Your task to perform on an android device: Show me productivity apps on the Play Store Image 0: 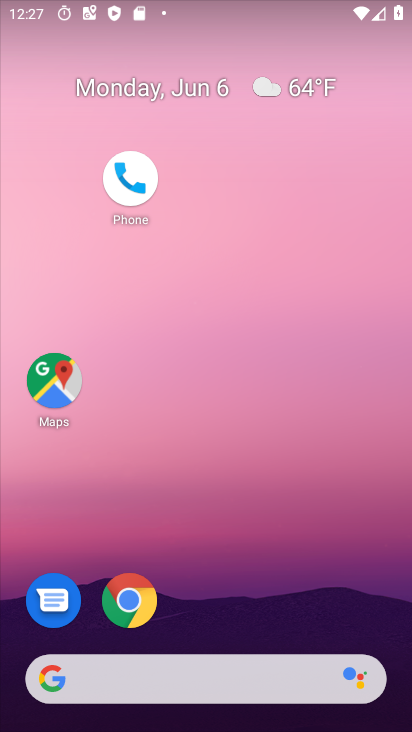
Step 0: drag from (287, 541) to (271, 58)
Your task to perform on an android device: Show me productivity apps on the Play Store Image 1: 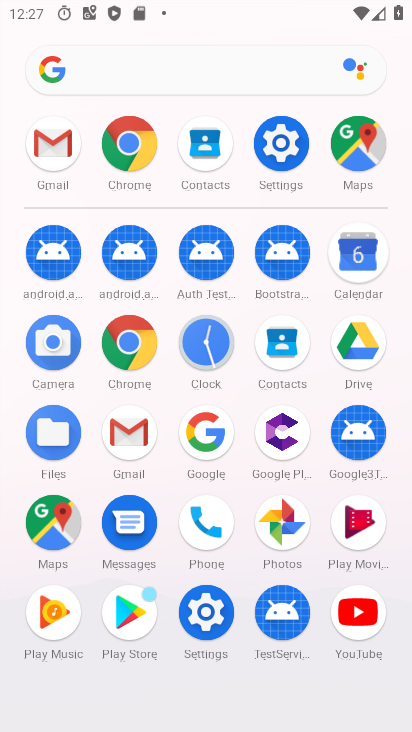
Step 1: click (141, 618)
Your task to perform on an android device: Show me productivity apps on the Play Store Image 2: 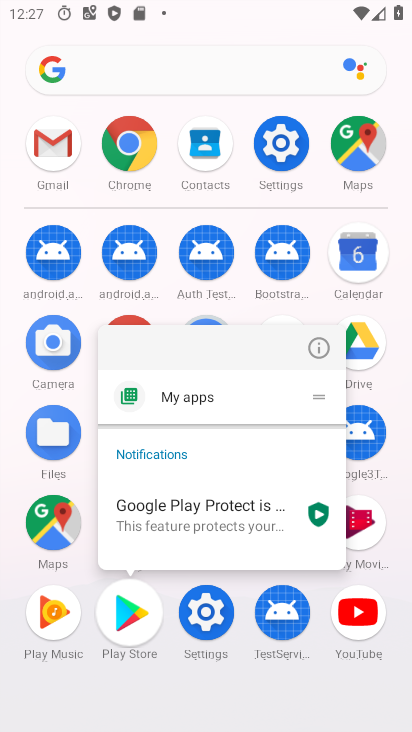
Step 2: click (139, 608)
Your task to perform on an android device: Show me productivity apps on the Play Store Image 3: 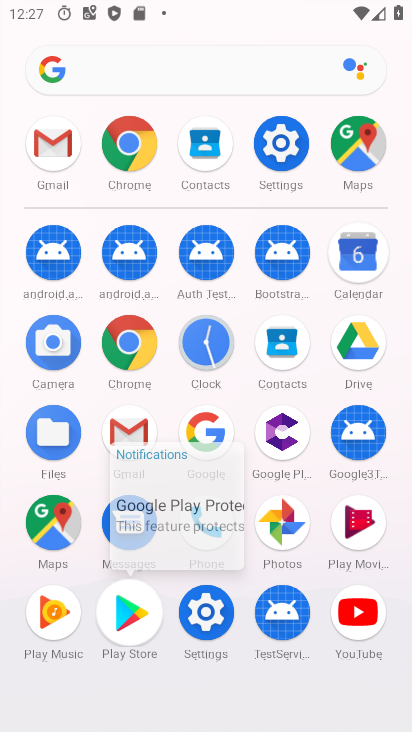
Step 3: click (134, 606)
Your task to perform on an android device: Show me productivity apps on the Play Store Image 4: 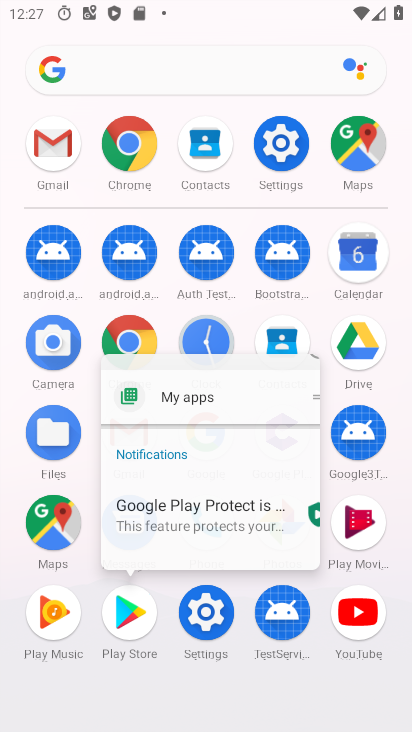
Step 4: click (136, 606)
Your task to perform on an android device: Show me productivity apps on the Play Store Image 5: 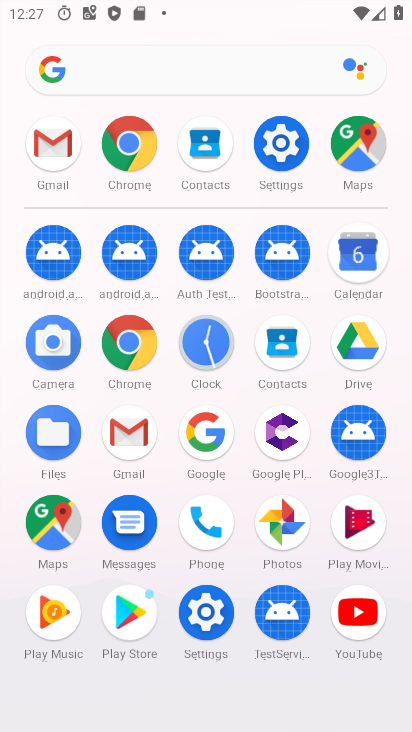
Step 5: click (136, 606)
Your task to perform on an android device: Show me productivity apps on the Play Store Image 6: 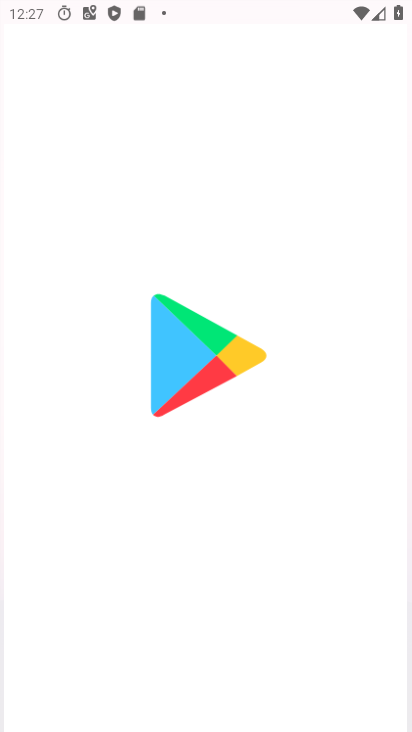
Step 6: click (131, 607)
Your task to perform on an android device: Show me productivity apps on the Play Store Image 7: 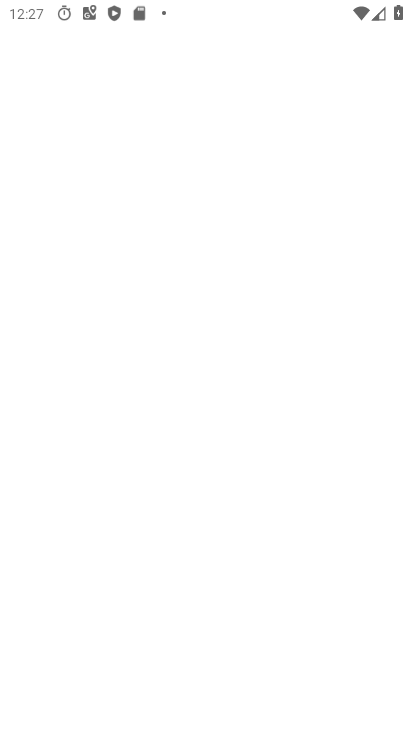
Step 7: click (126, 609)
Your task to perform on an android device: Show me productivity apps on the Play Store Image 8: 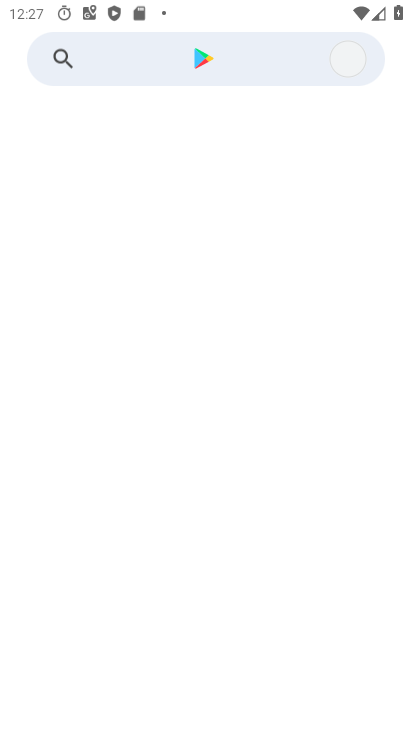
Step 8: click (123, 601)
Your task to perform on an android device: Show me productivity apps on the Play Store Image 9: 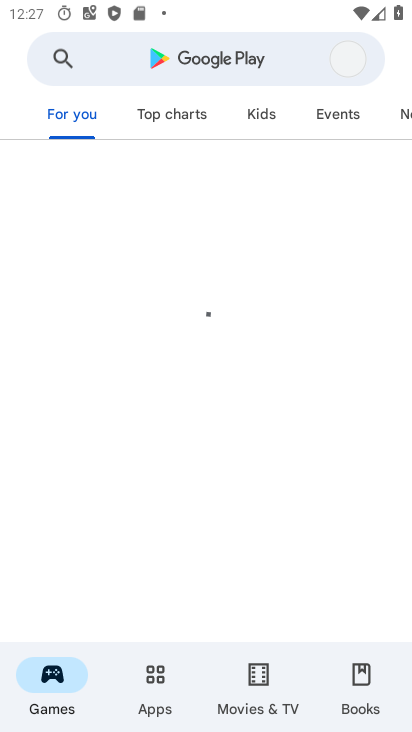
Step 9: click (72, 612)
Your task to perform on an android device: Show me productivity apps on the Play Store Image 10: 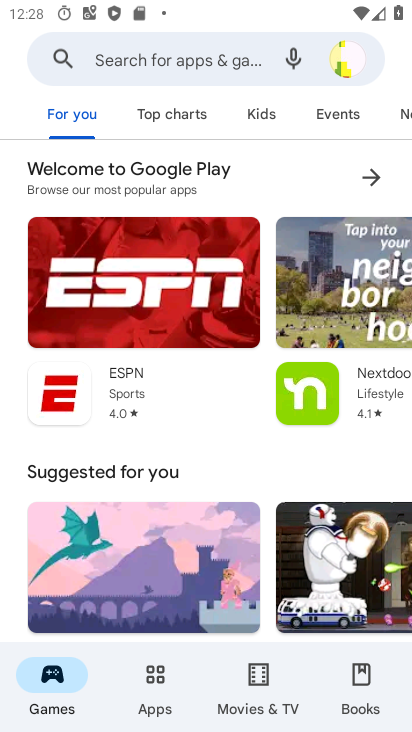
Step 10: press back button
Your task to perform on an android device: Show me productivity apps on the Play Store Image 11: 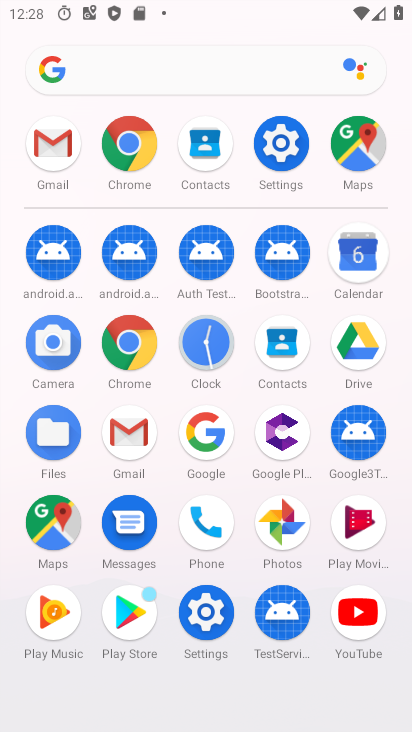
Step 11: click (130, 609)
Your task to perform on an android device: Show me productivity apps on the Play Store Image 12: 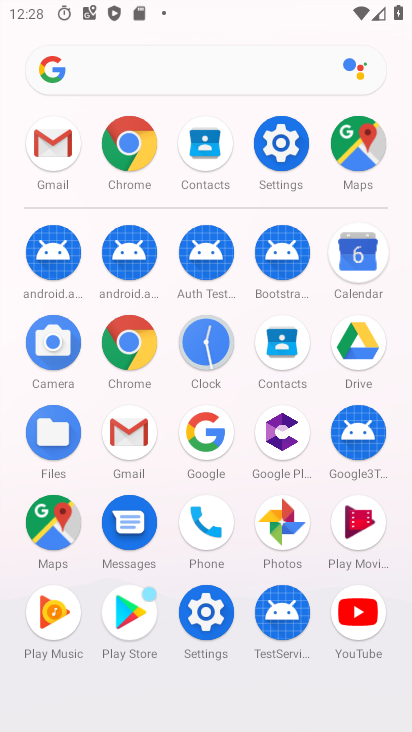
Step 12: click (129, 608)
Your task to perform on an android device: Show me productivity apps on the Play Store Image 13: 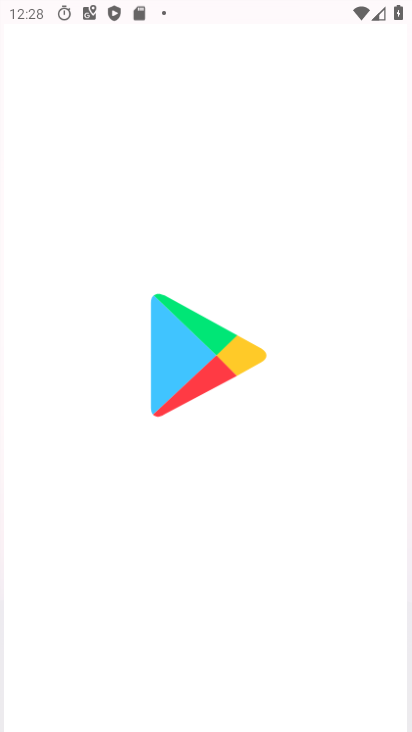
Step 13: click (129, 608)
Your task to perform on an android device: Show me productivity apps on the Play Store Image 14: 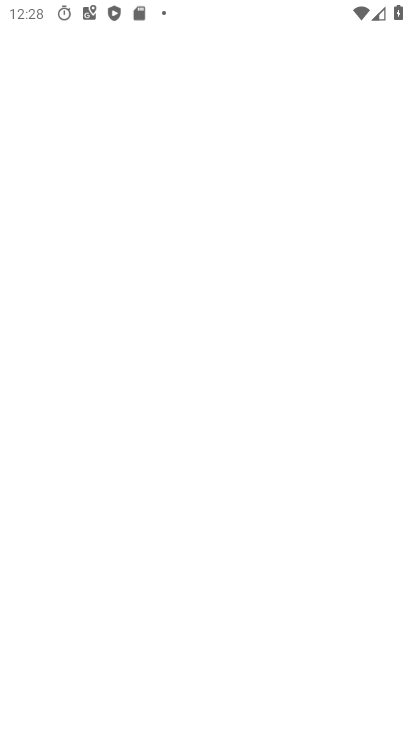
Step 14: click (125, 612)
Your task to perform on an android device: Show me productivity apps on the Play Store Image 15: 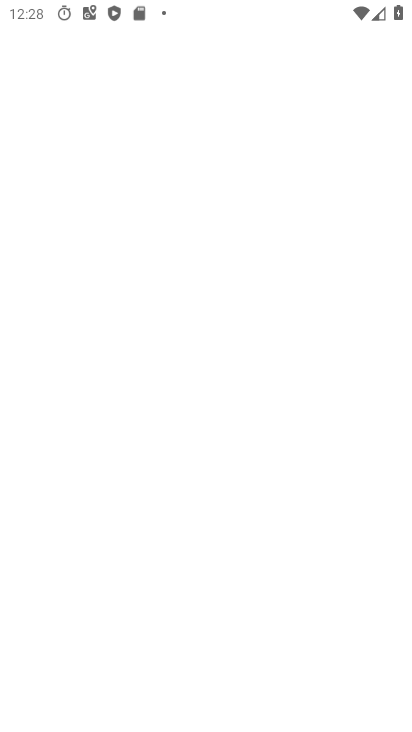
Step 15: click (120, 611)
Your task to perform on an android device: Show me productivity apps on the Play Store Image 16: 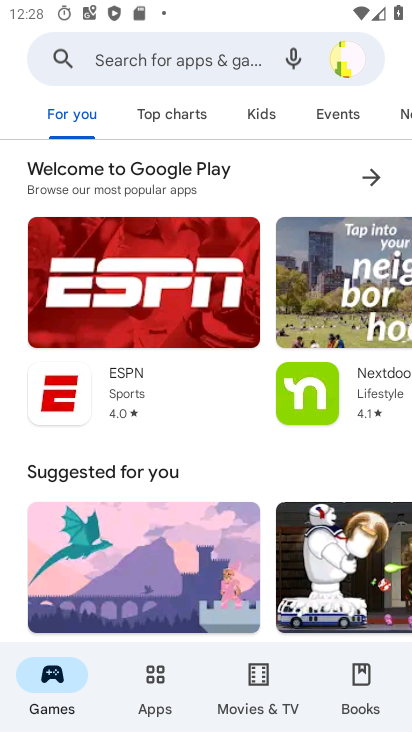
Step 16: click (122, 60)
Your task to perform on an android device: Show me productivity apps on the Play Store Image 17: 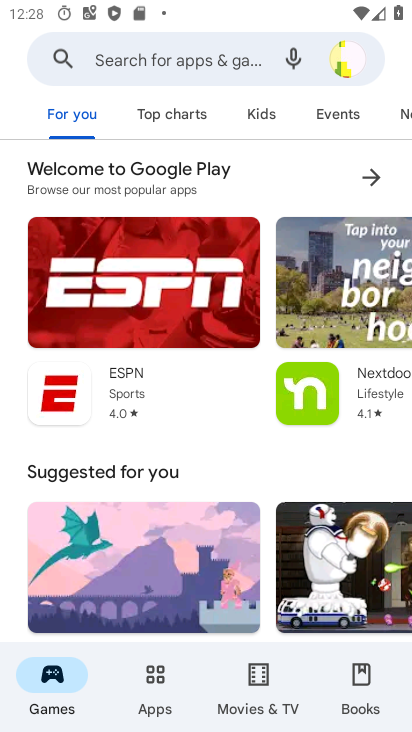
Step 17: click (120, 59)
Your task to perform on an android device: Show me productivity apps on the Play Store Image 18: 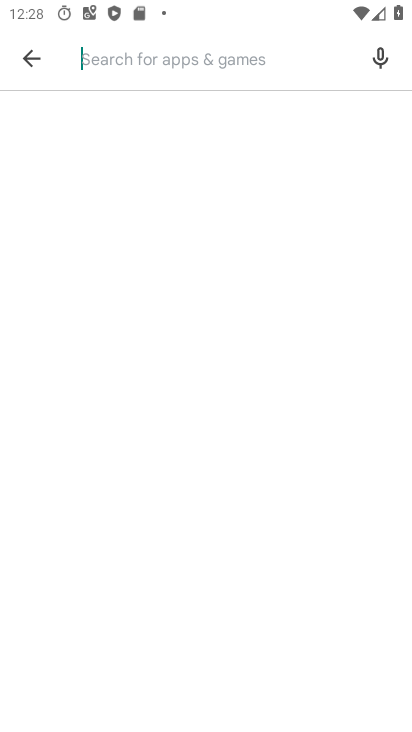
Step 18: click (117, 59)
Your task to perform on an android device: Show me productivity apps on the Play Store Image 19: 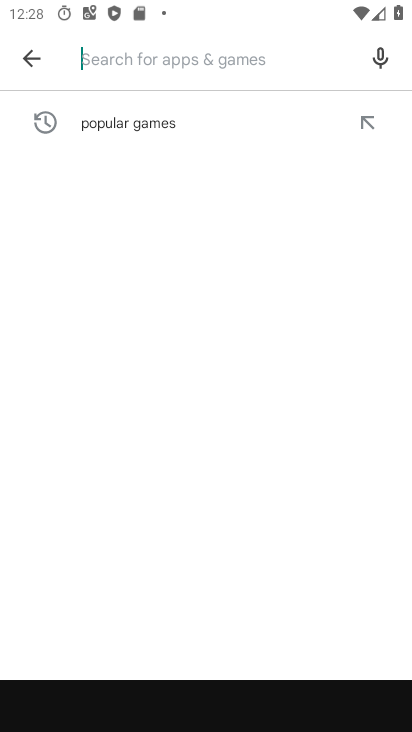
Step 19: click (115, 62)
Your task to perform on an android device: Show me productivity apps on the Play Store Image 20: 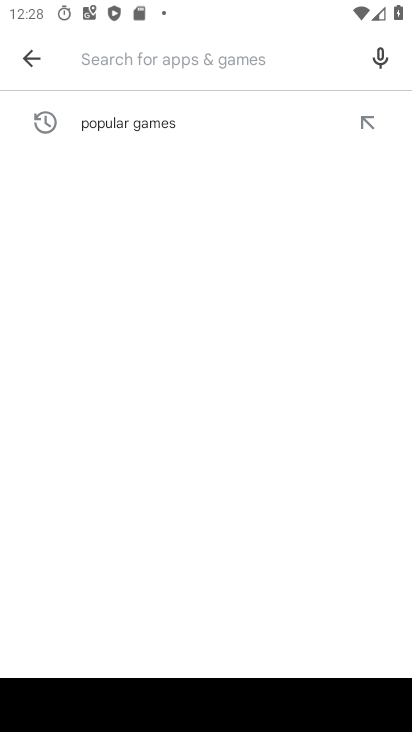
Step 20: click (111, 69)
Your task to perform on an android device: Show me productivity apps on the Play Store Image 21: 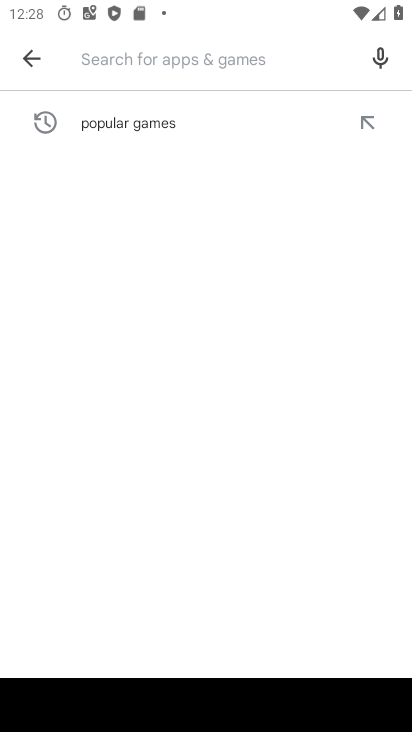
Step 21: click (111, 69)
Your task to perform on an android device: Show me productivity apps on the Play Store Image 22: 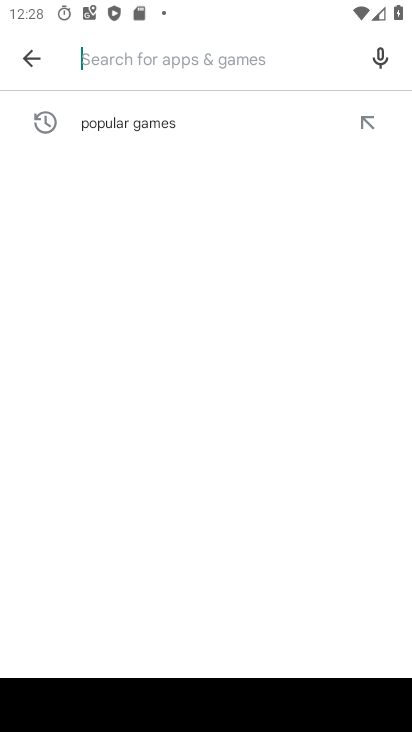
Step 22: click (111, 69)
Your task to perform on an android device: Show me productivity apps on the Play Store Image 23: 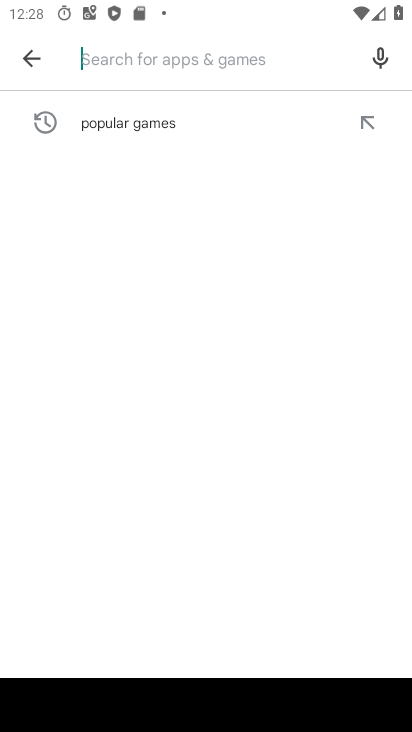
Step 23: click (111, 69)
Your task to perform on an android device: Show me productivity apps on the Play Store Image 24: 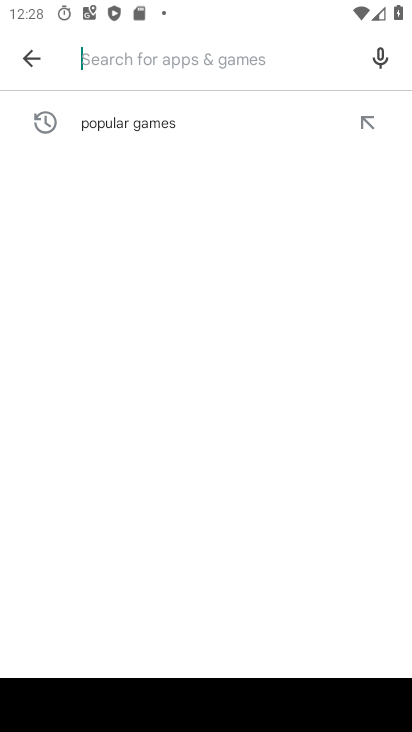
Step 24: type "productivity apps"
Your task to perform on an android device: Show me productivity apps on the Play Store Image 25: 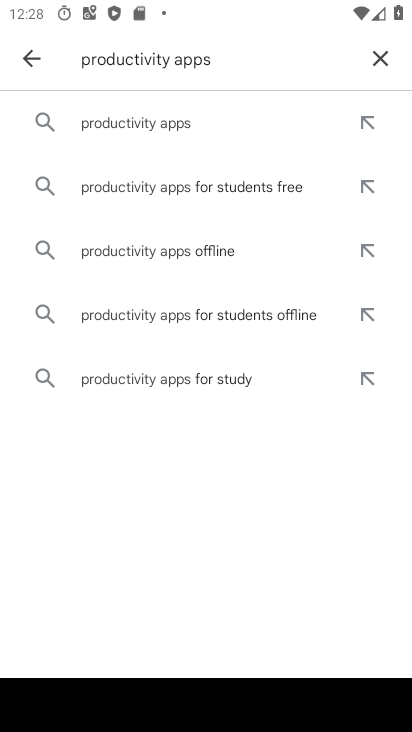
Step 25: click (141, 123)
Your task to perform on an android device: Show me productivity apps on the Play Store Image 26: 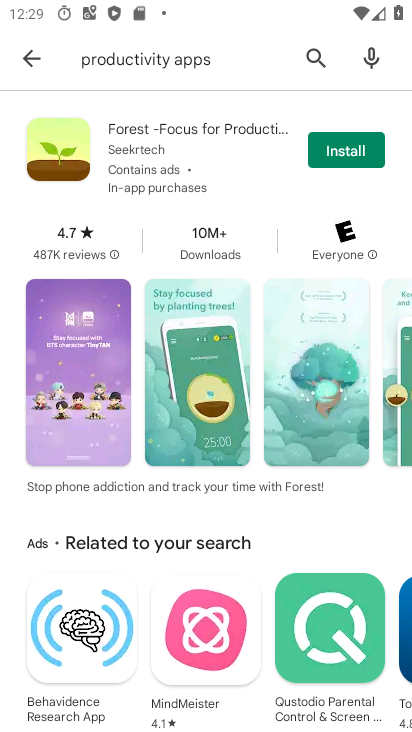
Step 26: task complete